Your task to perform on an android device: Show me popular videos on Youtube Image 0: 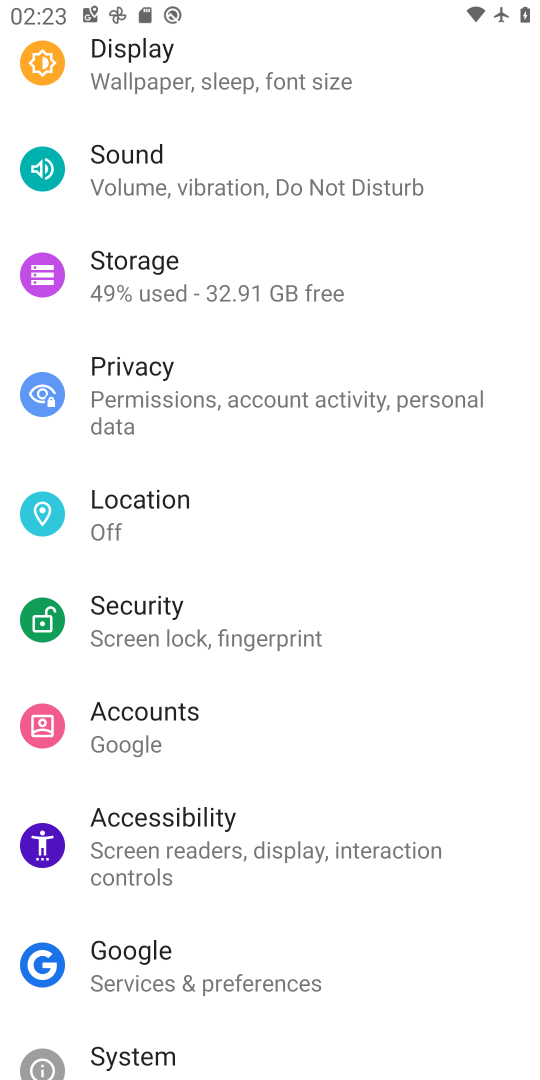
Step 0: press home button
Your task to perform on an android device: Show me popular videos on Youtube Image 1: 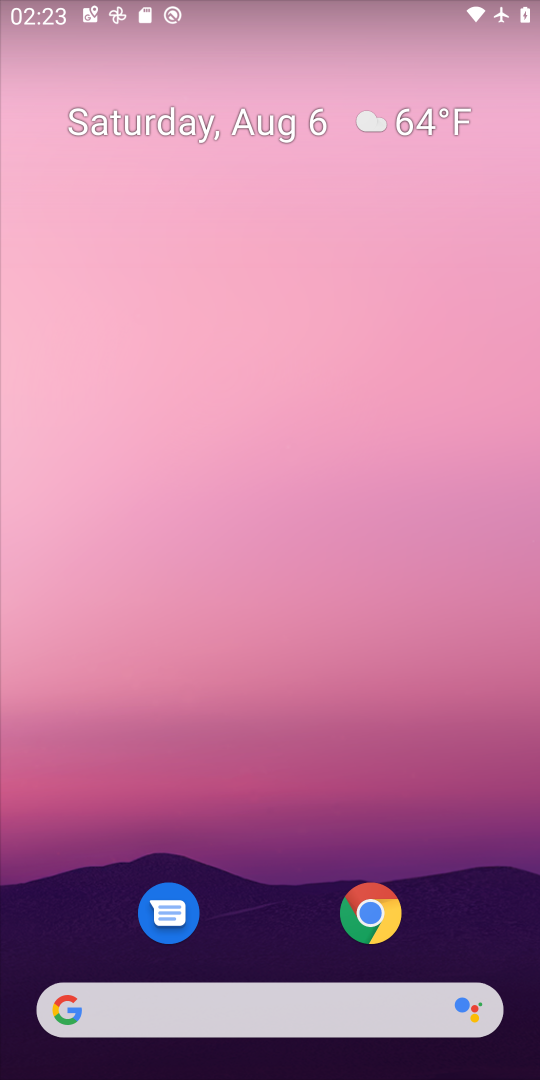
Step 1: drag from (288, 933) to (346, 250)
Your task to perform on an android device: Show me popular videos on Youtube Image 2: 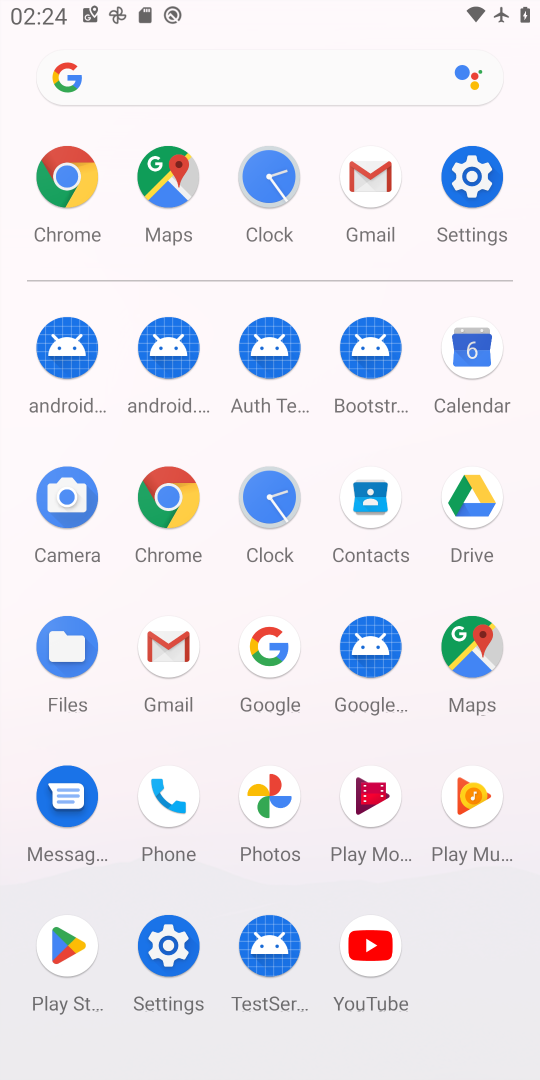
Step 2: click (374, 935)
Your task to perform on an android device: Show me popular videos on Youtube Image 3: 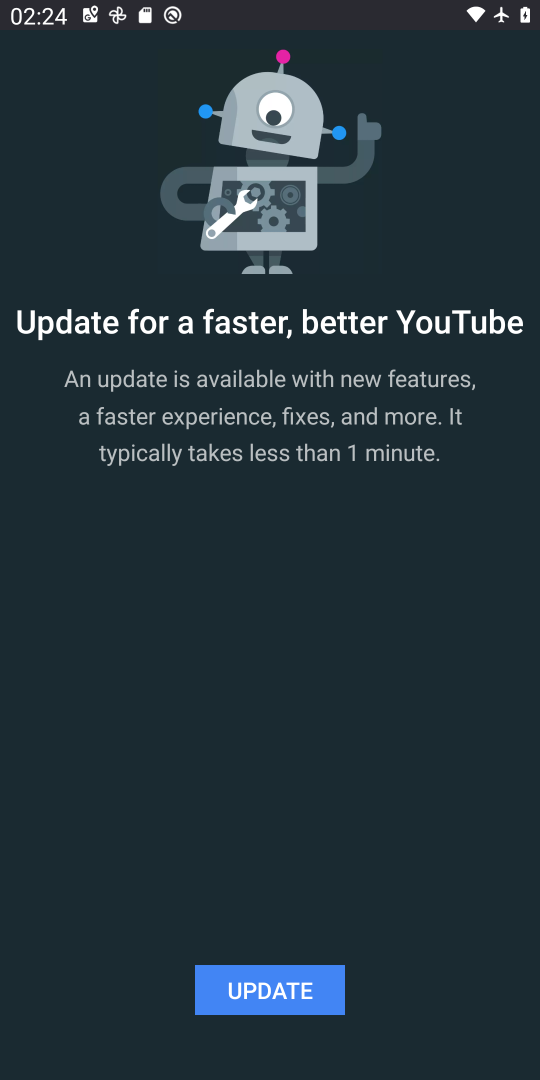
Step 3: click (281, 992)
Your task to perform on an android device: Show me popular videos on Youtube Image 4: 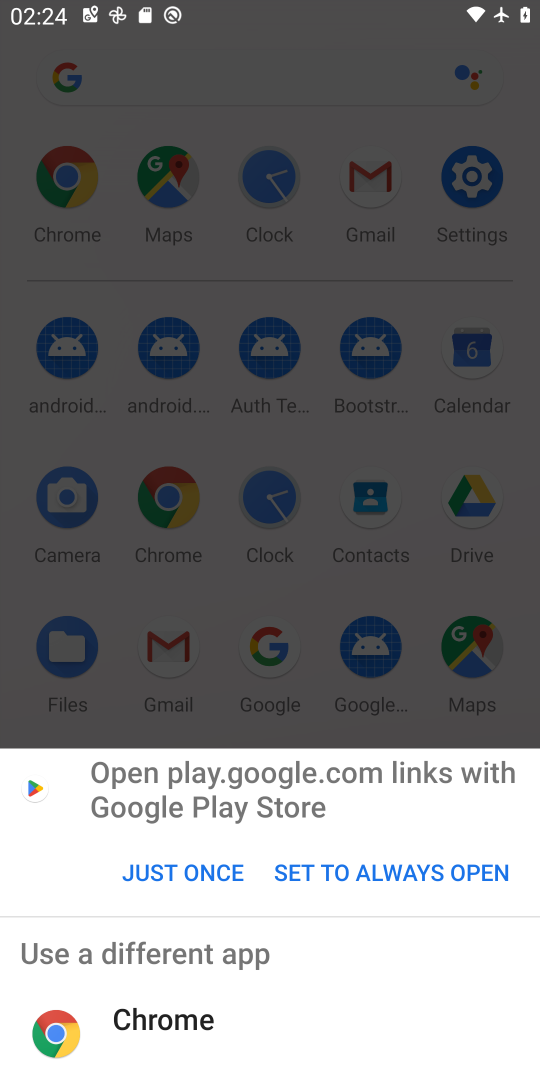
Step 4: click (216, 864)
Your task to perform on an android device: Show me popular videos on Youtube Image 5: 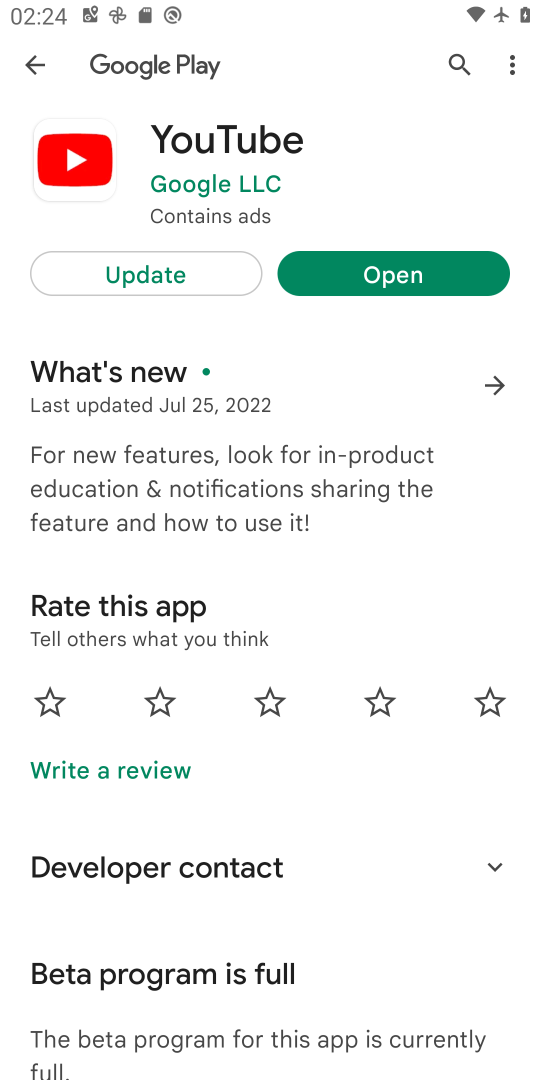
Step 5: click (157, 277)
Your task to perform on an android device: Show me popular videos on Youtube Image 6: 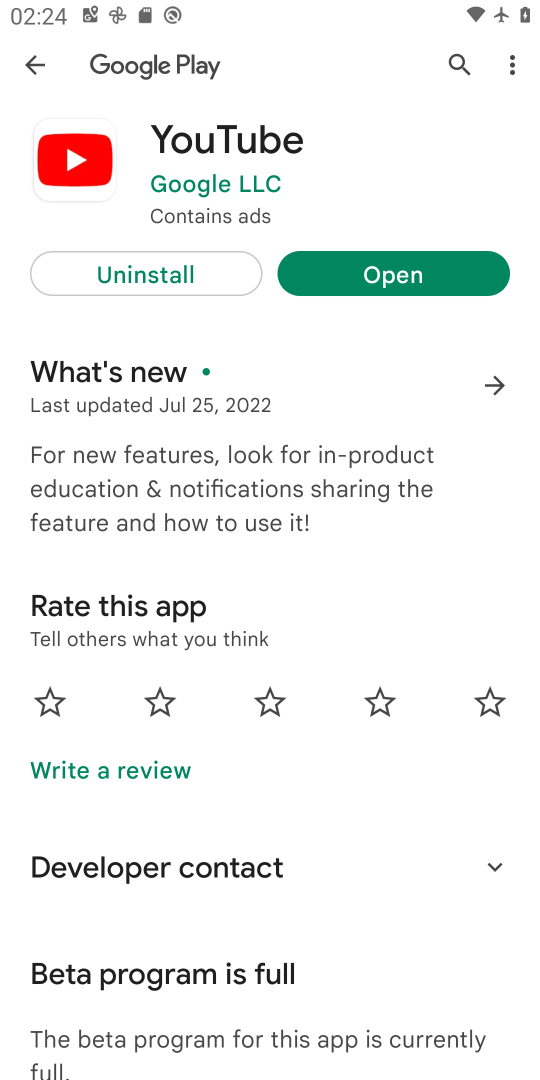
Step 6: click (436, 279)
Your task to perform on an android device: Show me popular videos on Youtube Image 7: 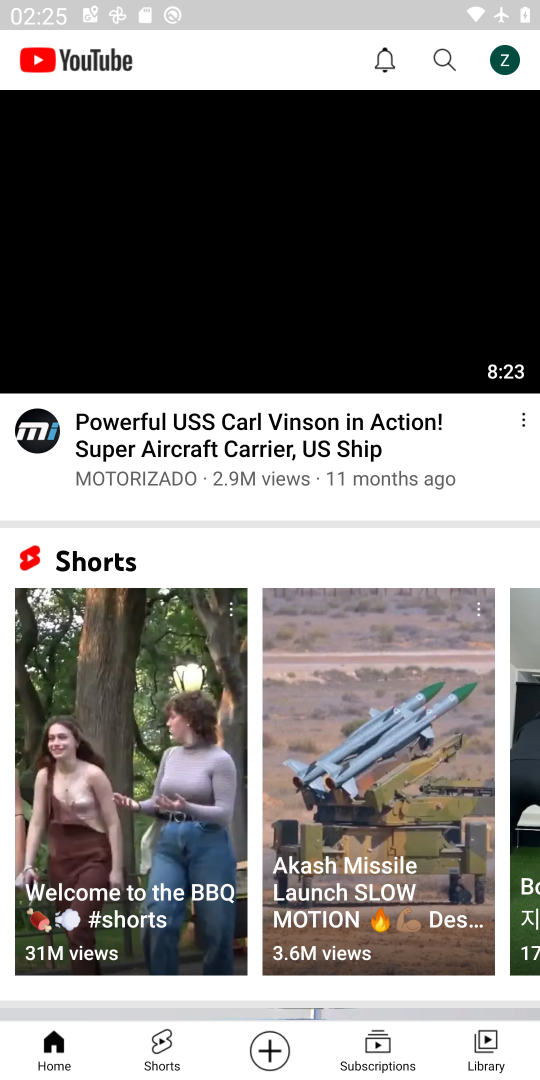
Step 7: task complete